Your task to perform on an android device: check google app version Image 0: 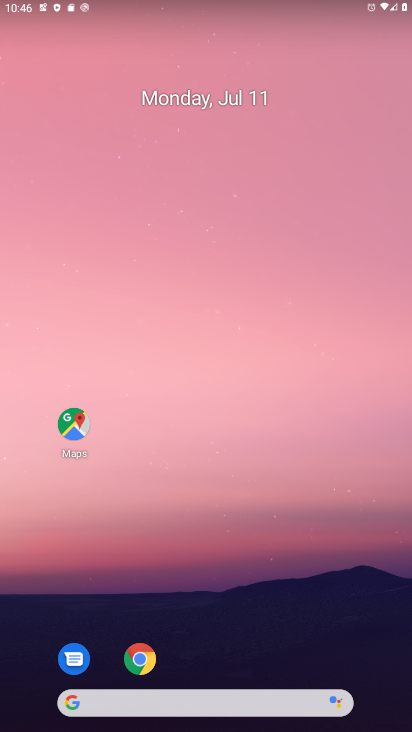
Step 0: drag from (216, 632) to (212, 136)
Your task to perform on an android device: check google app version Image 1: 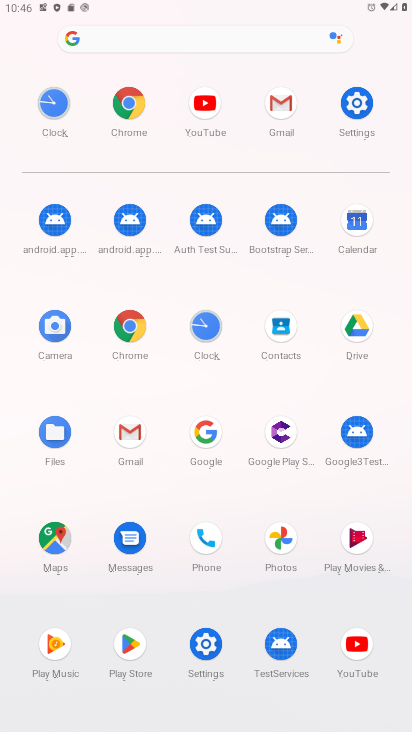
Step 1: click (200, 440)
Your task to perform on an android device: check google app version Image 2: 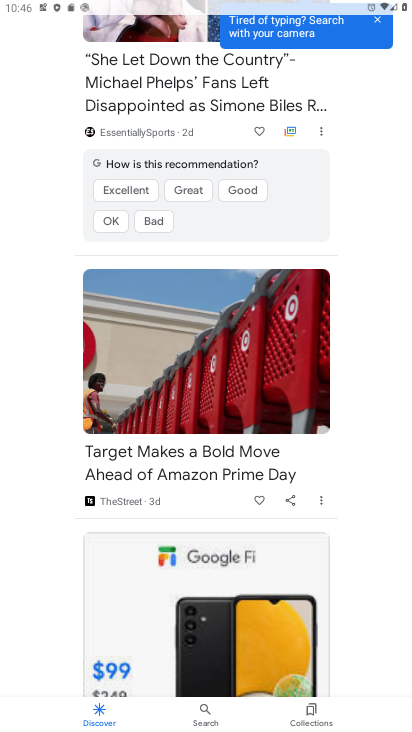
Step 2: drag from (224, 171) to (376, 720)
Your task to perform on an android device: check google app version Image 3: 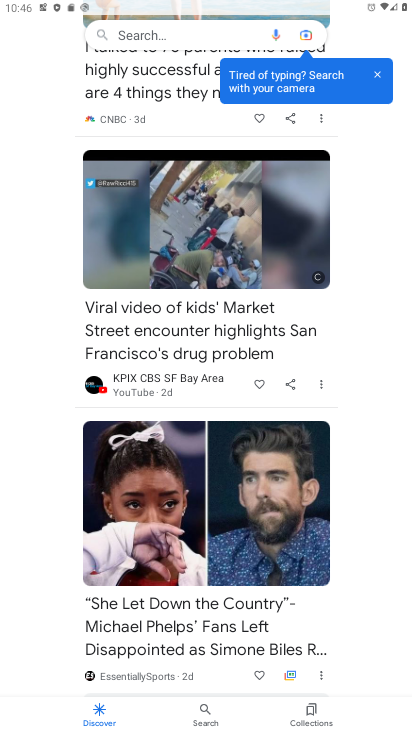
Step 3: drag from (296, 137) to (308, 729)
Your task to perform on an android device: check google app version Image 4: 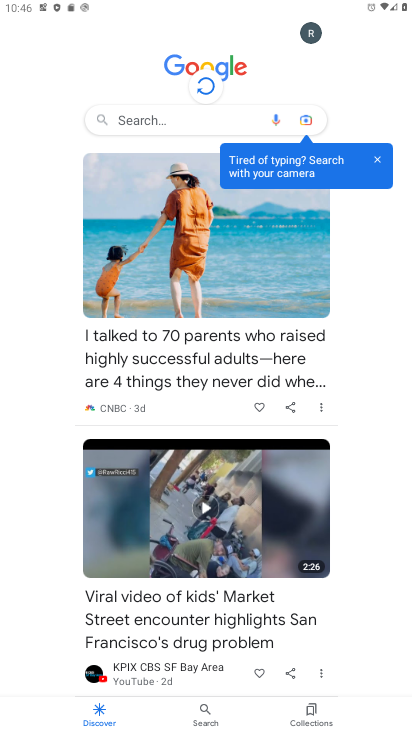
Step 4: drag from (226, 351) to (390, 713)
Your task to perform on an android device: check google app version Image 5: 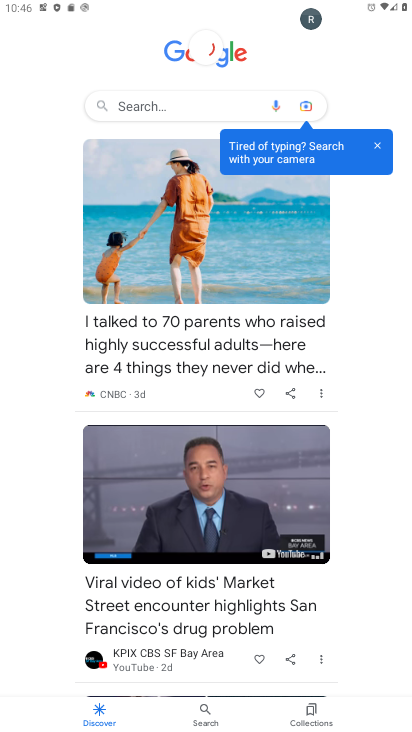
Step 5: click (313, 21)
Your task to perform on an android device: check google app version Image 6: 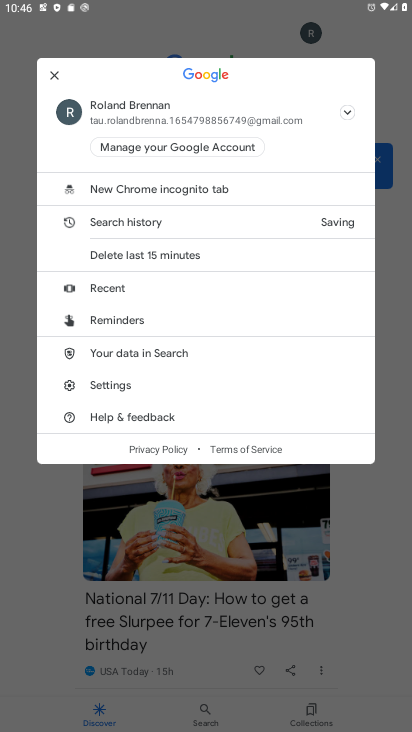
Step 6: click (111, 380)
Your task to perform on an android device: check google app version Image 7: 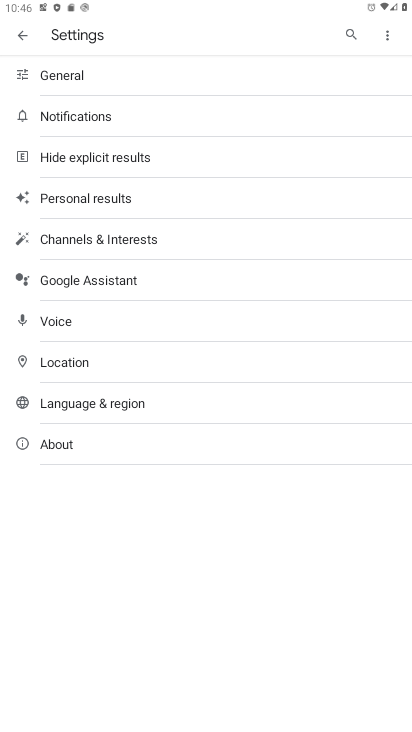
Step 7: drag from (198, 628) to (190, 249)
Your task to perform on an android device: check google app version Image 8: 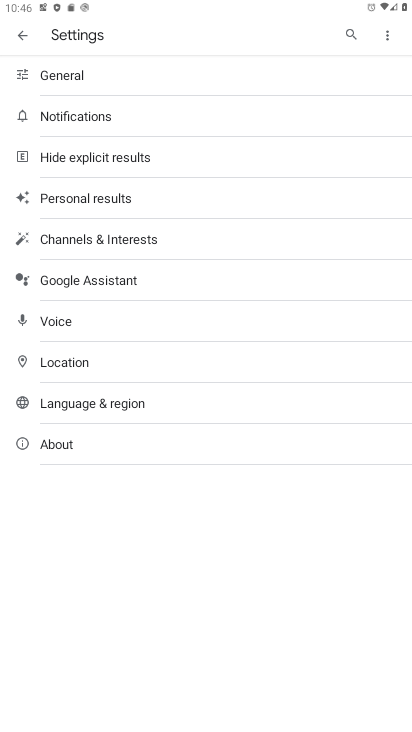
Step 8: drag from (144, 510) to (156, 186)
Your task to perform on an android device: check google app version Image 9: 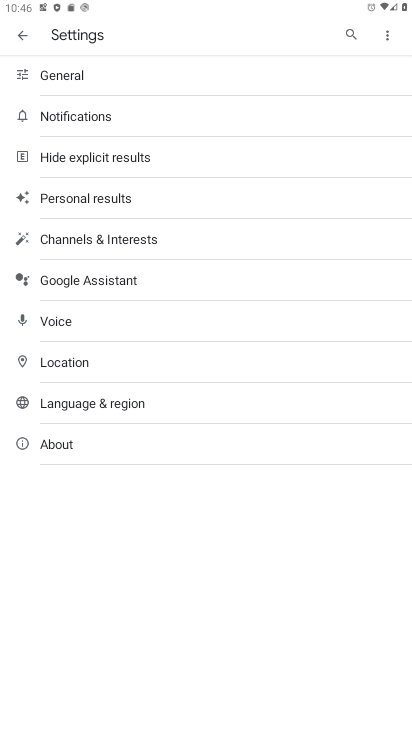
Step 9: click (104, 80)
Your task to perform on an android device: check google app version Image 10: 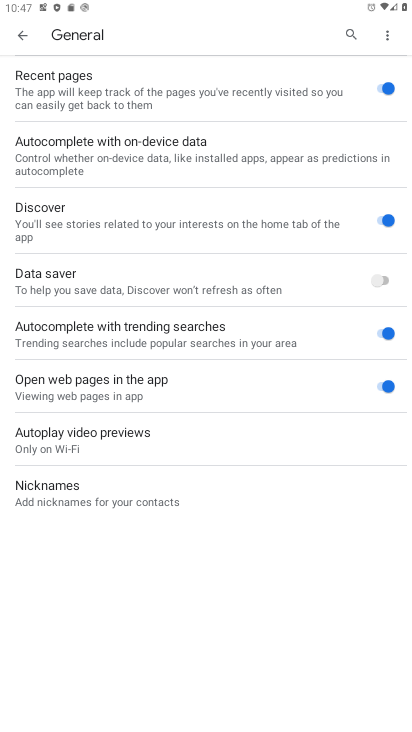
Step 10: drag from (208, 497) to (271, 86)
Your task to perform on an android device: check google app version Image 11: 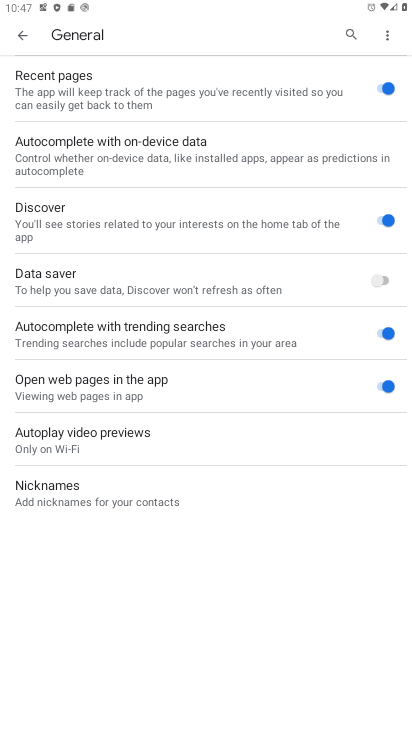
Step 11: drag from (179, 616) to (204, 112)
Your task to perform on an android device: check google app version Image 12: 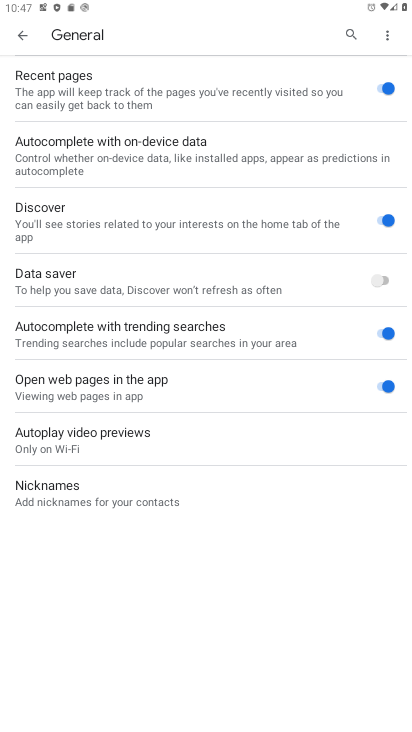
Step 12: click (23, 35)
Your task to perform on an android device: check google app version Image 13: 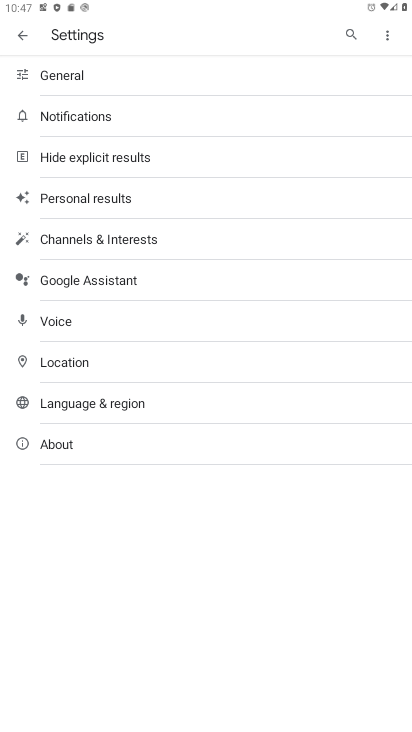
Step 13: click (44, 450)
Your task to perform on an android device: check google app version Image 14: 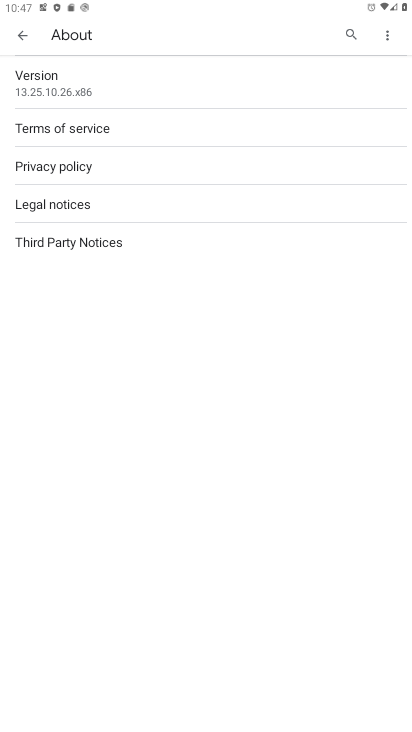
Step 14: click (115, 79)
Your task to perform on an android device: check google app version Image 15: 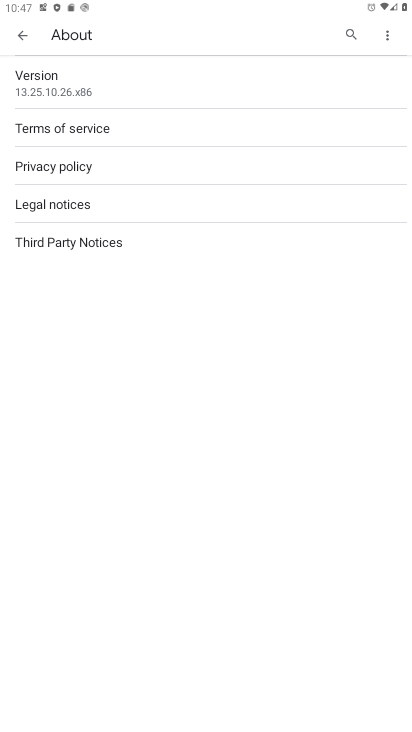
Step 15: task complete